Your task to perform on an android device: Open calendar and show me the first week of next month Image 0: 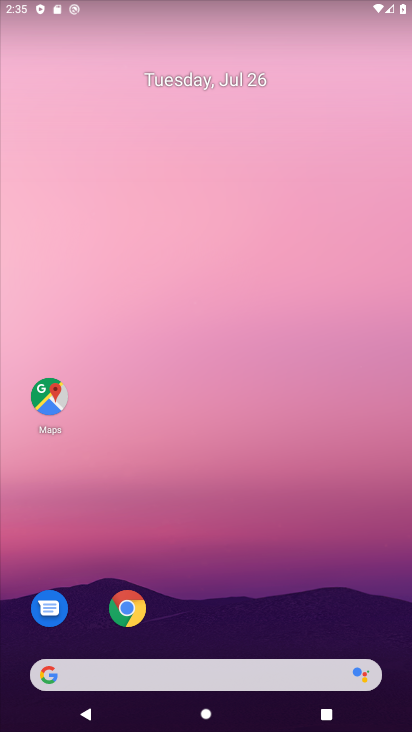
Step 0: drag from (227, 419) to (235, 105)
Your task to perform on an android device: Open calendar and show me the first week of next month Image 1: 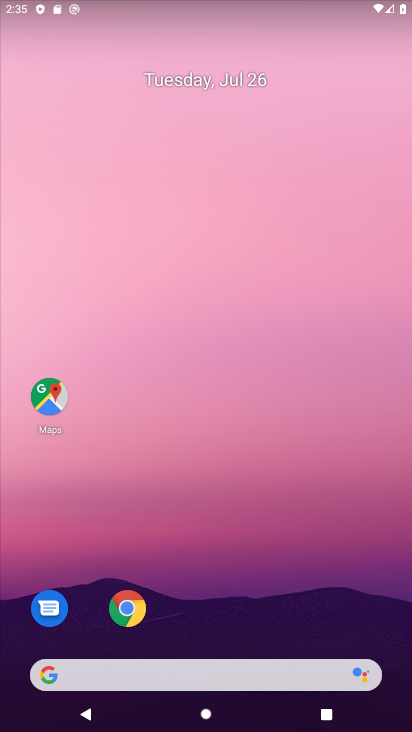
Step 1: drag from (260, 439) to (252, 13)
Your task to perform on an android device: Open calendar and show me the first week of next month Image 2: 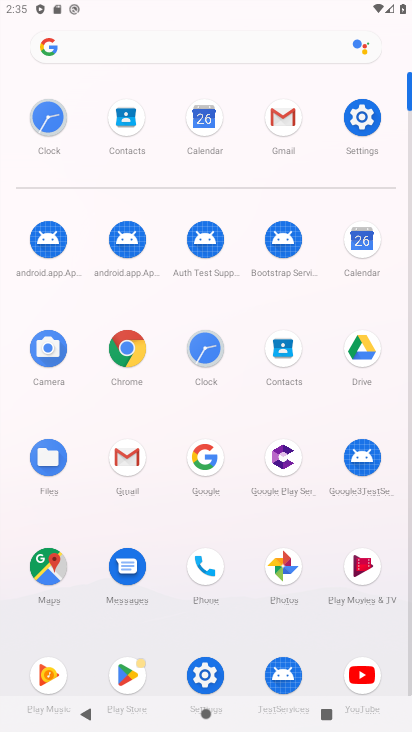
Step 2: click (355, 252)
Your task to perform on an android device: Open calendar and show me the first week of next month Image 3: 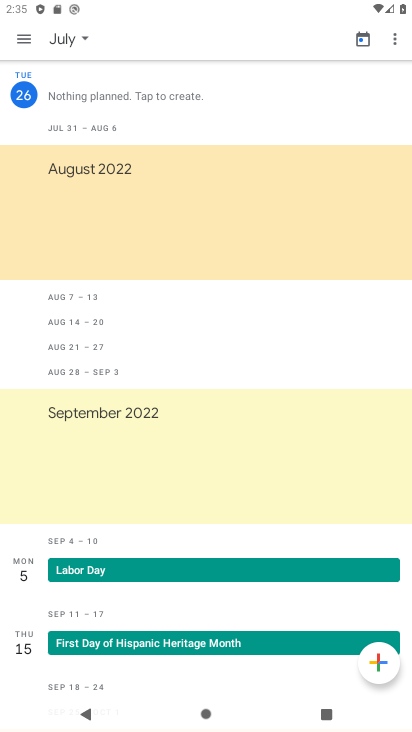
Step 3: task complete